Your task to perform on an android device: Do I have any events tomorrow? Image 0: 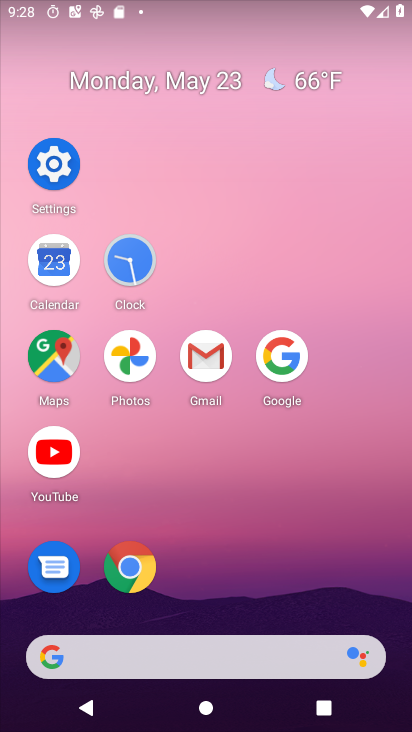
Step 0: click (58, 253)
Your task to perform on an android device: Do I have any events tomorrow? Image 1: 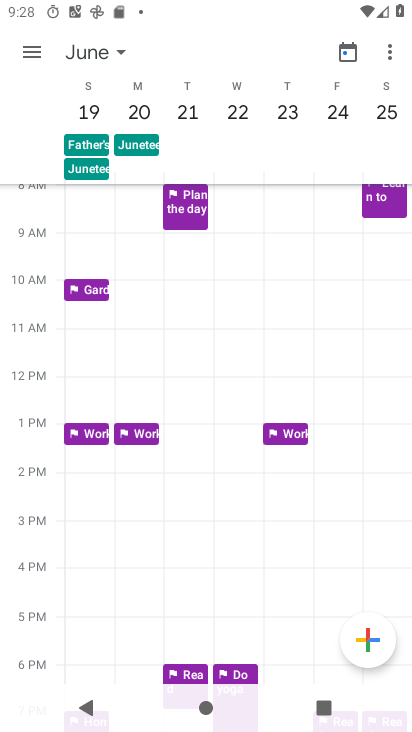
Step 1: click (114, 65)
Your task to perform on an android device: Do I have any events tomorrow? Image 2: 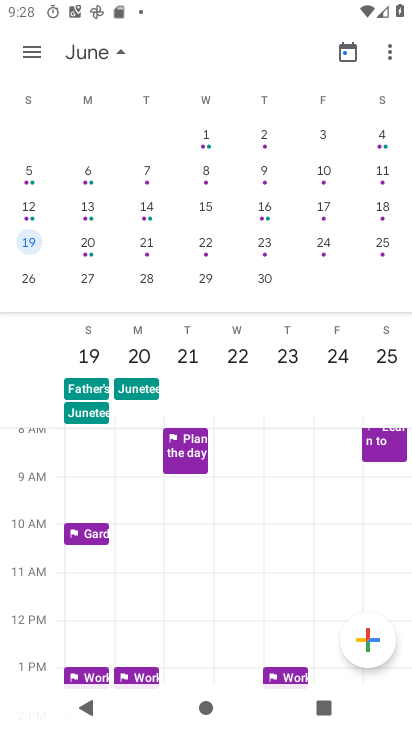
Step 2: drag from (37, 189) to (385, 168)
Your task to perform on an android device: Do I have any events tomorrow? Image 3: 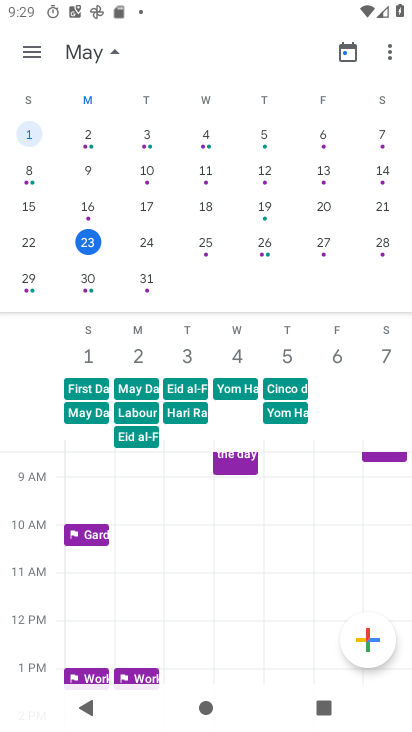
Step 3: click (199, 237)
Your task to perform on an android device: Do I have any events tomorrow? Image 4: 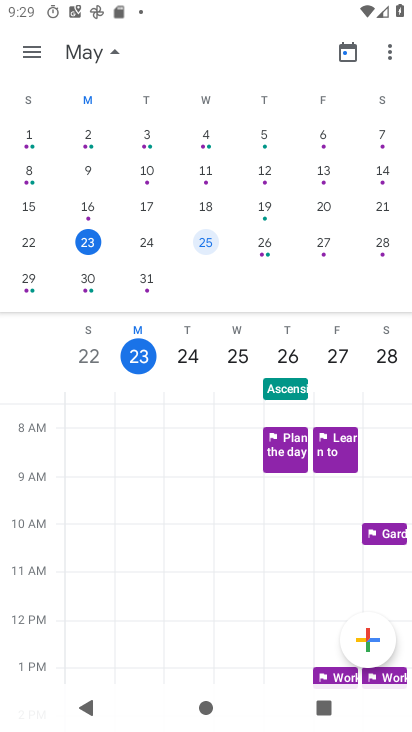
Step 4: click (232, 352)
Your task to perform on an android device: Do I have any events tomorrow? Image 5: 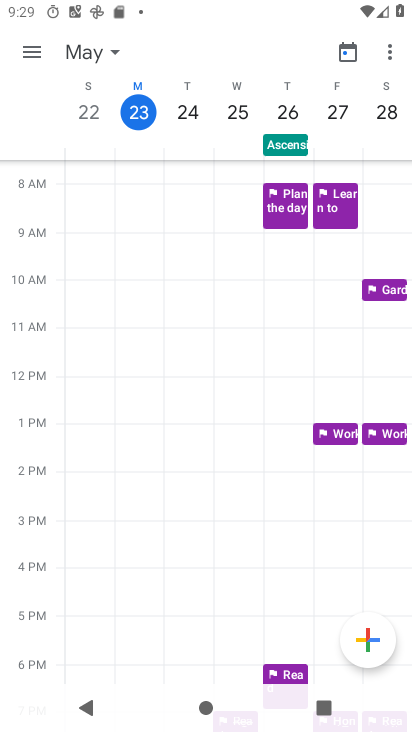
Step 5: click (230, 111)
Your task to perform on an android device: Do I have any events tomorrow? Image 6: 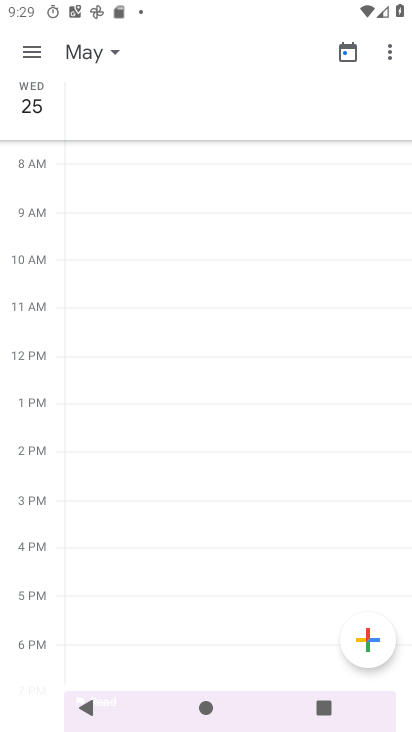
Step 6: task complete